Your task to perform on an android device: What's the weather? Image 0: 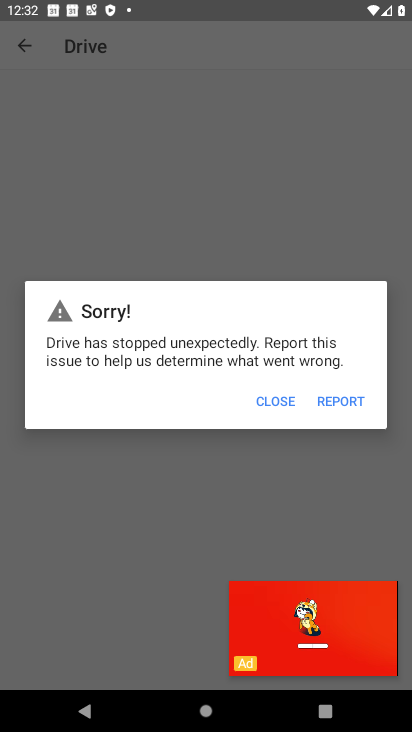
Step 0: click (318, 620)
Your task to perform on an android device: What's the weather? Image 1: 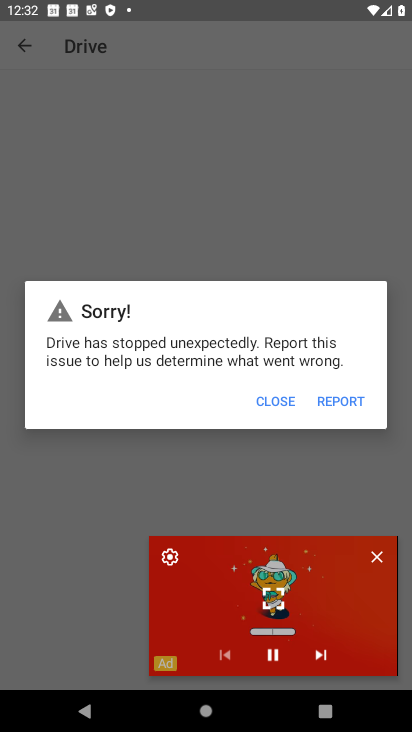
Step 1: click (380, 550)
Your task to perform on an android device: What's the weather? Image 2: 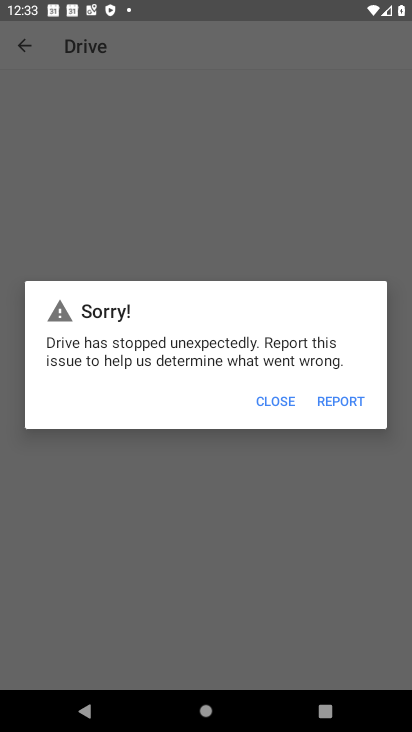
Step 2: press home button
Your task to perform on an android device: What's the weather? Image 3: 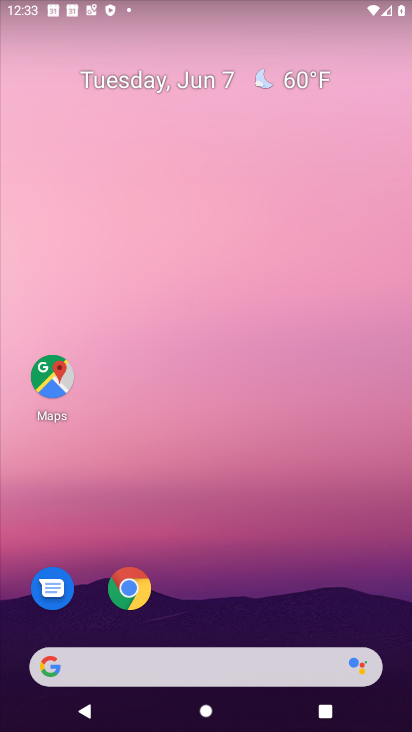
Step 3: click (255, 669)
Your task to perform on an android device: What's the weather? Image 4: 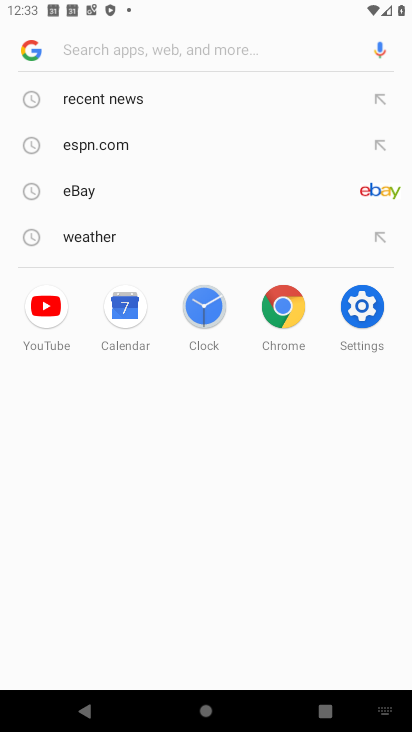
Step 4: click (101, 241)
Your task to perform on an android device: What's the weather? Image 5: 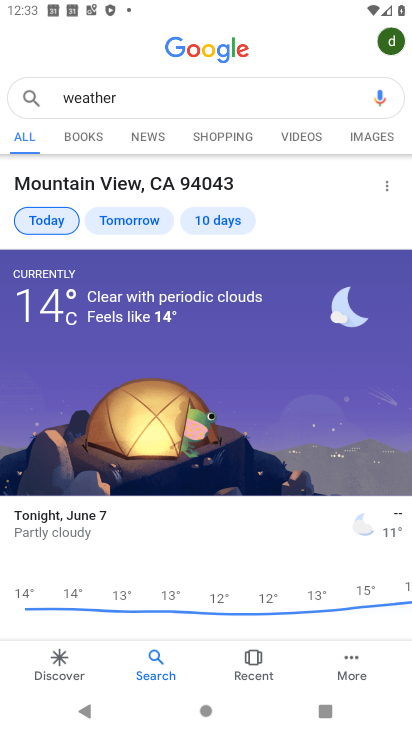
Step 5: task complete